Your task to perform on an android device: Go to location settings Image 0: 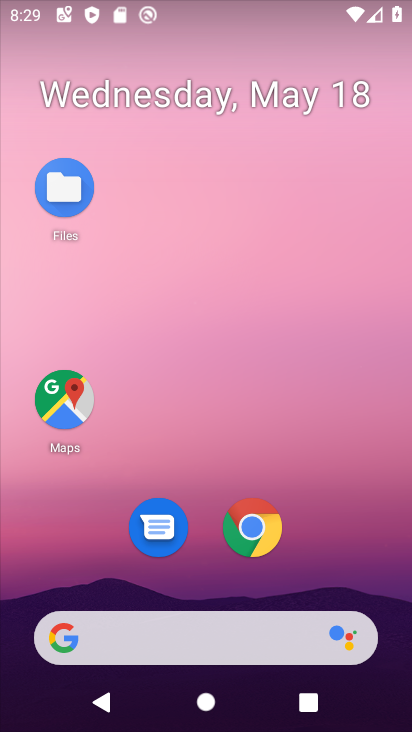
Step 0: drag from (313, 535) to (253, 347)
Your task to perform on an android device: Go to location settings Image 1: 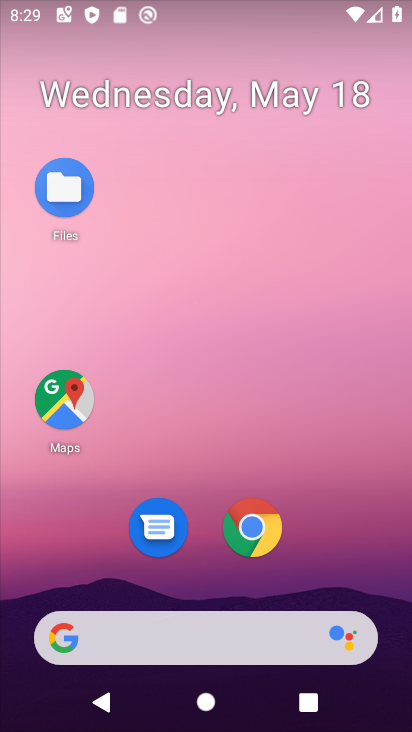
Step 1: drag from (407, 677) to (303, 188)
Your task to perform on an android device: Go to location settings Image 2: 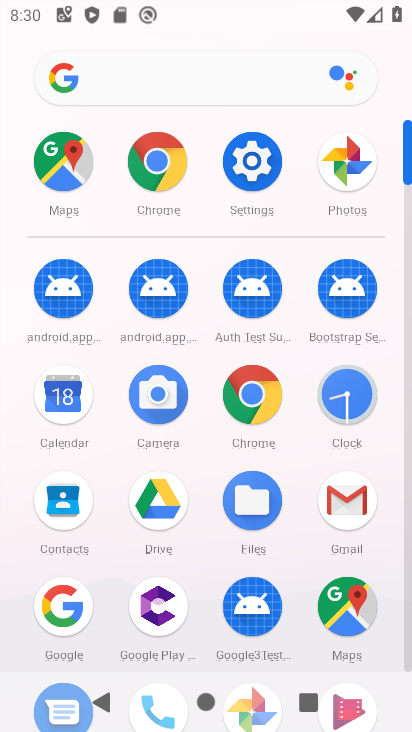
Step 2: click (242, 168)
Your task to perform on an android device: Go to location settings Image 3: 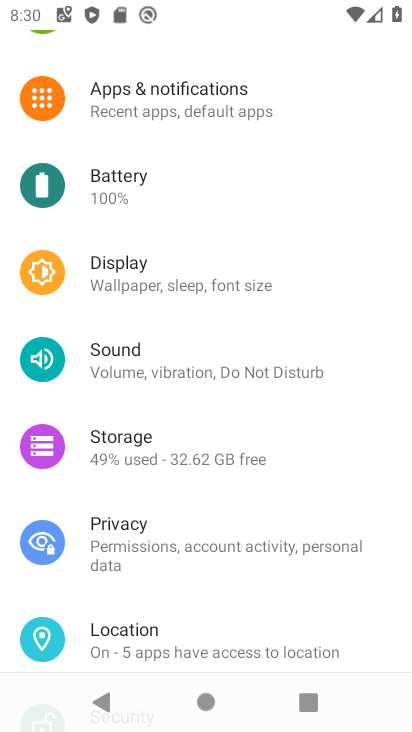
Step 3: click (135, 623)
Your task to perform on an android device: Go to location settings Image 4: 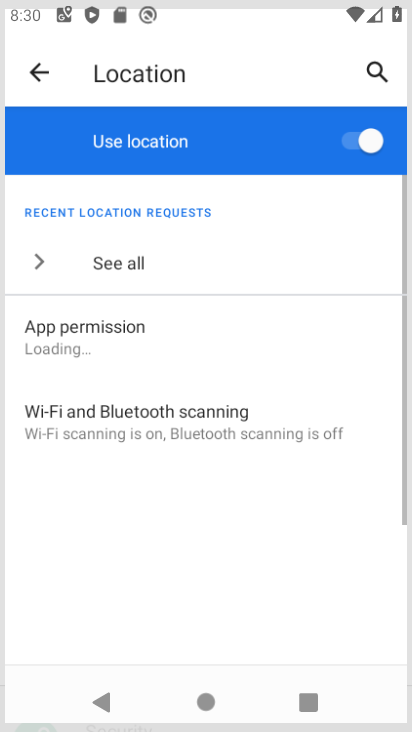
Step 4: click (136, 647)
Your task to perform on an android device: Go to location settings Image 5: 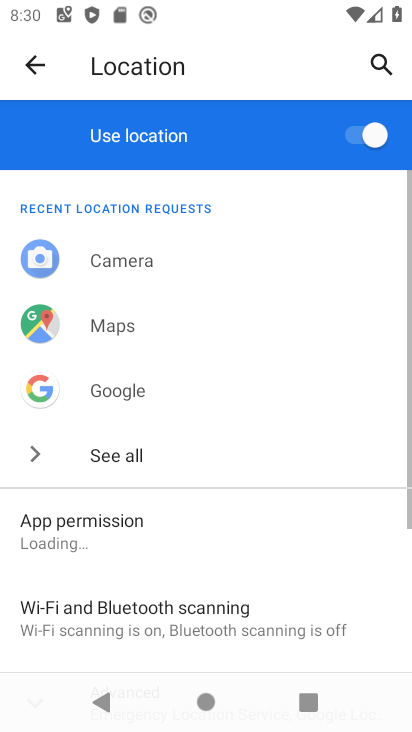
Step 5: click (137, 647)
Your task to perform on an android device: Go to location settings Image 6: 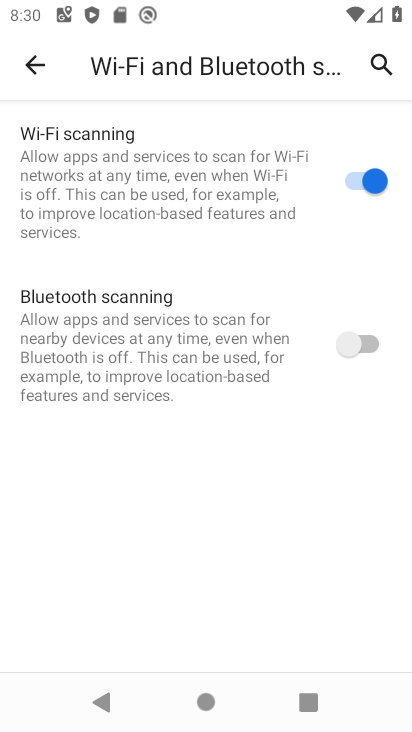
Step 6: click (350, 341)
Your task to perform on an android device: Go to location settings Image 7: 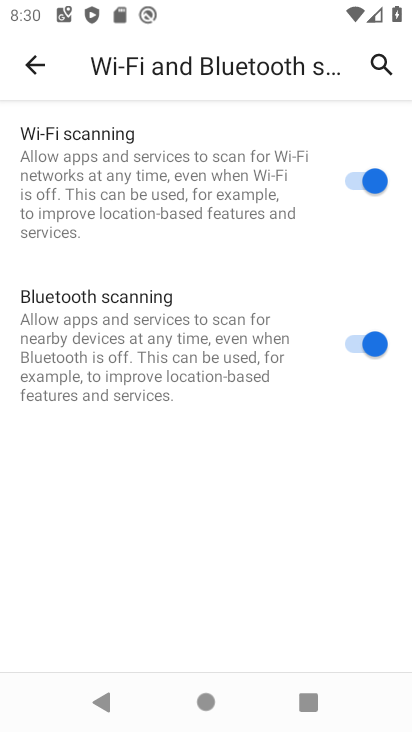
Step 7: task complete